Your task to perform on an android device: open a new tab in the chrome app Image 0: 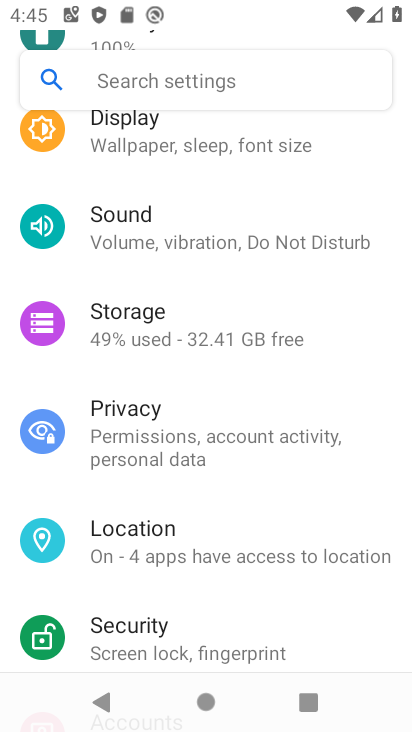
Step 0: press home button
Your task to perform on an android device: open a new tab in the chrome app Image 1: 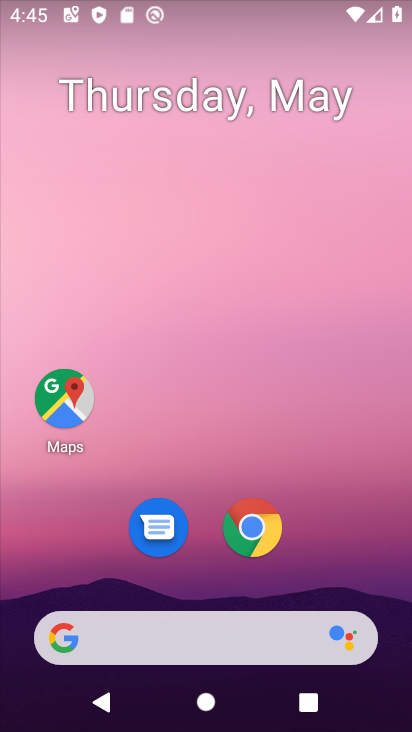
Step 1: drag from (352, 550) to (336, 11)
Your task to perform on an android device: open a new tab in the chrome app Image 2: 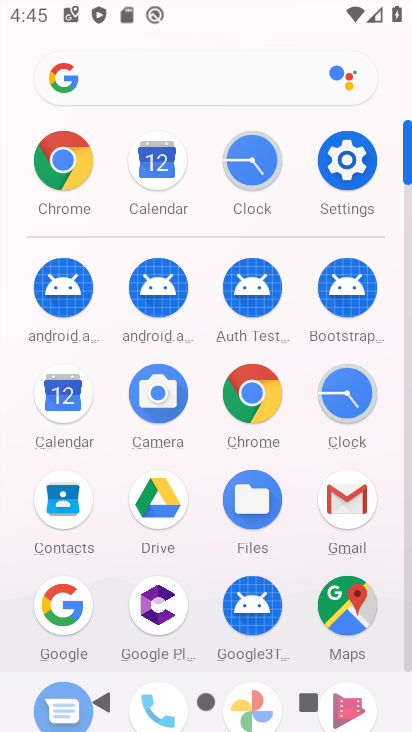
Step 2: click (54, 169)
Your task to perform on an android device: open a new tab in the chrome app Image 3: 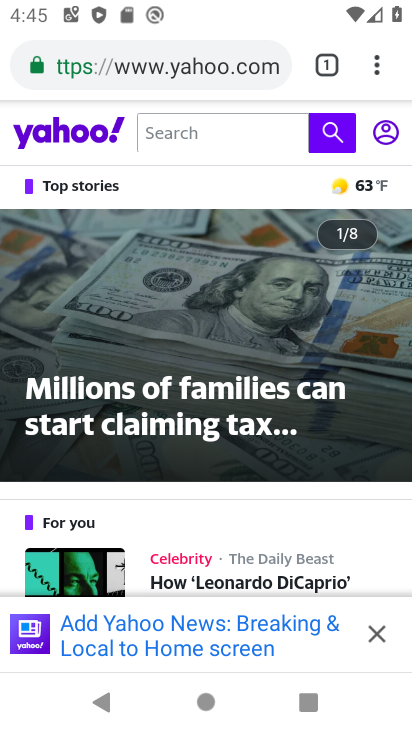
Step 3: drag from (383, 54) to (170, 128)
Your task to perform on an android device: open a new tab in the chrome app Image 4: 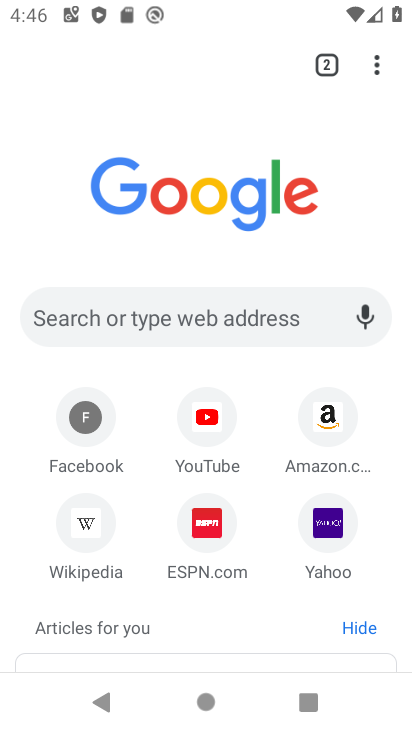
Step 4: drag from (364, 62) to (161, 114)
Your task to perform on an android device: open a new tab in the chrome app Image 5: 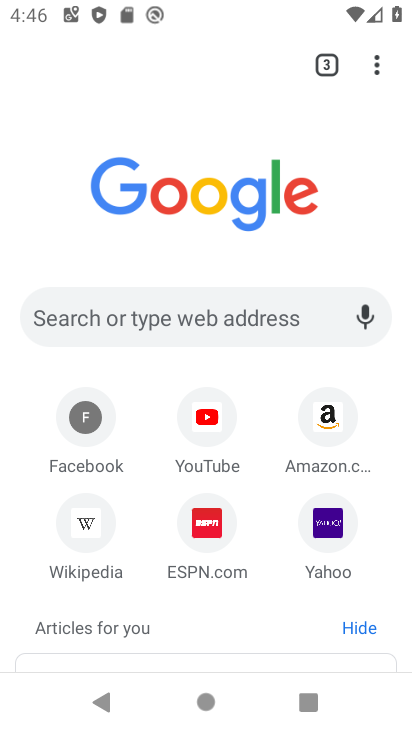
Step 5: click (383, 53)
Your task to perform on an android device: open a new tab in the chrome app Image 6: 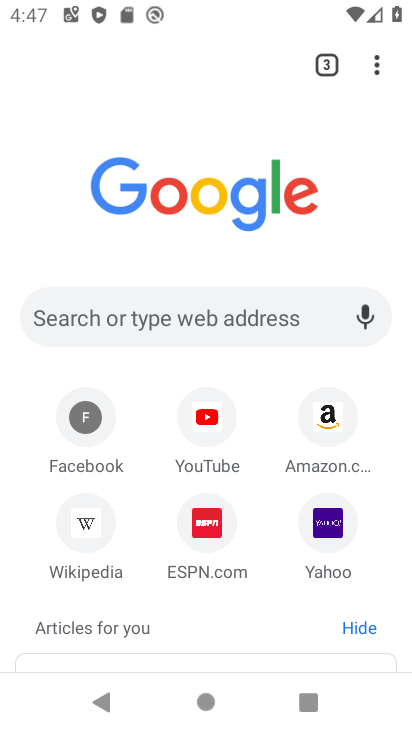
Step 6: task complete